Your task to perform on an android device: stop showing notifications on the lock screen Image 0: 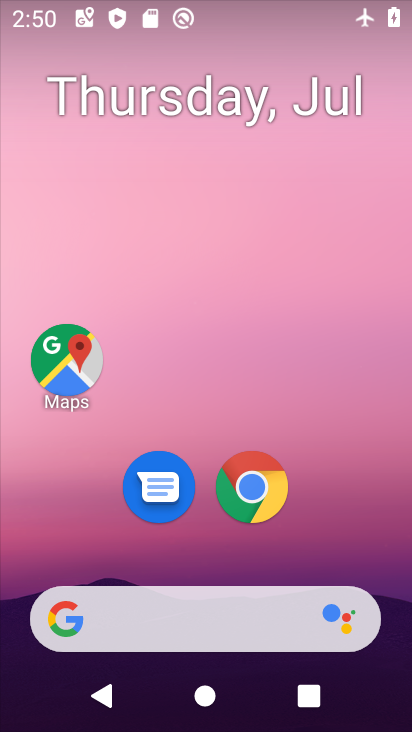
Step 0: drag from (375, 557) to (380, 105)
Your task to perform on an android device: stop showing notifications on the lock screen Image 1: 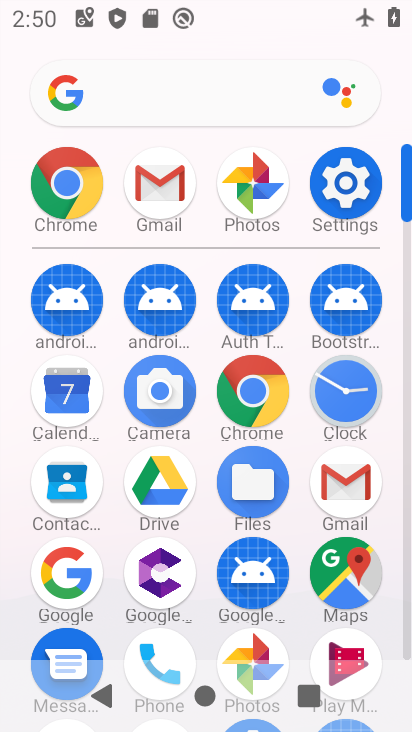
Step 1: click (359, 193)
Your task to perform on an android device: stop showing notifications on the lock screen Image 2: 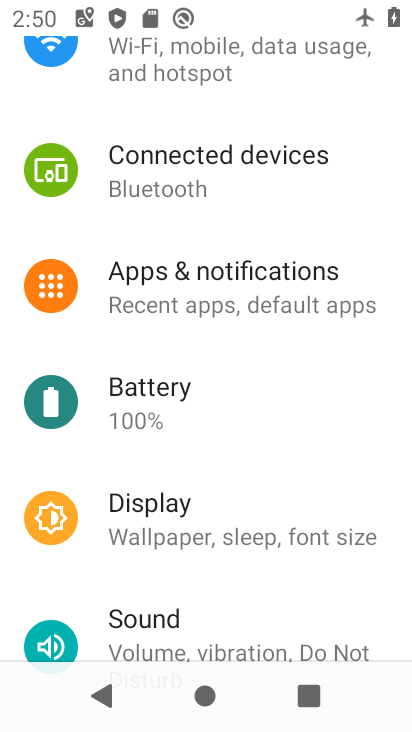
Step 2: click (335, 295)
Your task to perform on an android device: stop showing notifications on the lock screen Image 3: 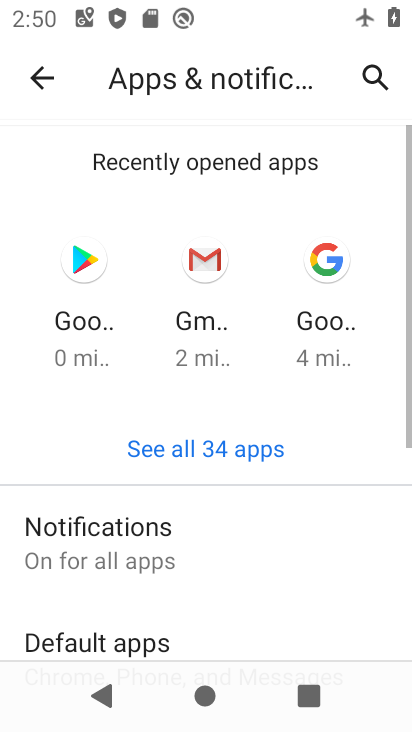
Step 3: drag from (336, 431) to (352, 359)
Your task to perform on an android device: stop showing notifications on the lock screen Image 4: 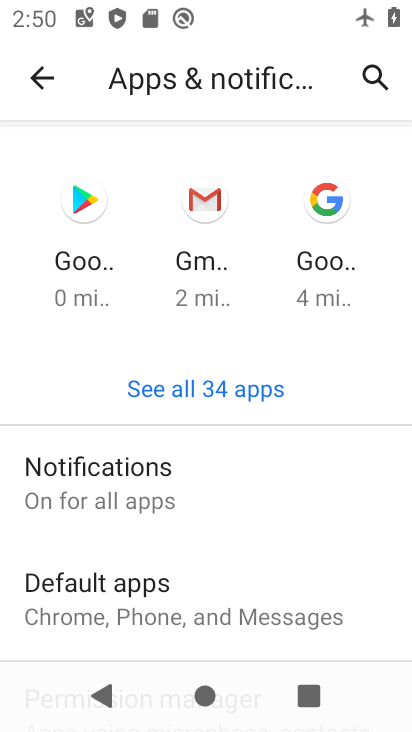
Step 4: drag from (356, 424) to (354, 346)
Your task to perform on an android device: stop showing notifications on the lock screen Image 5: 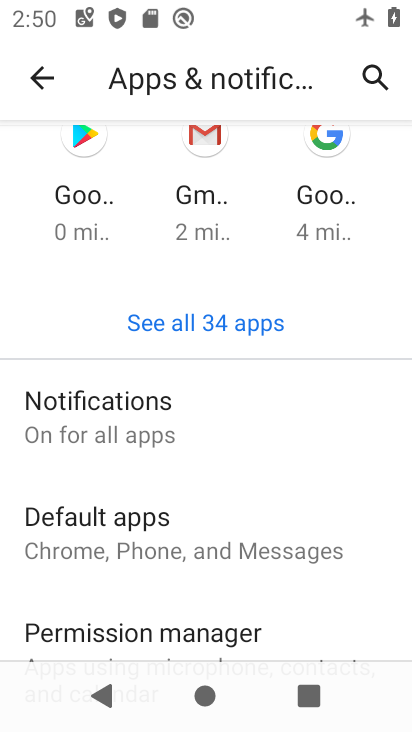
Step 5: drag from (351, 431) to (350, 344)
Your task to perform on an android device: stop showing notifications on the lock screen Image 6: 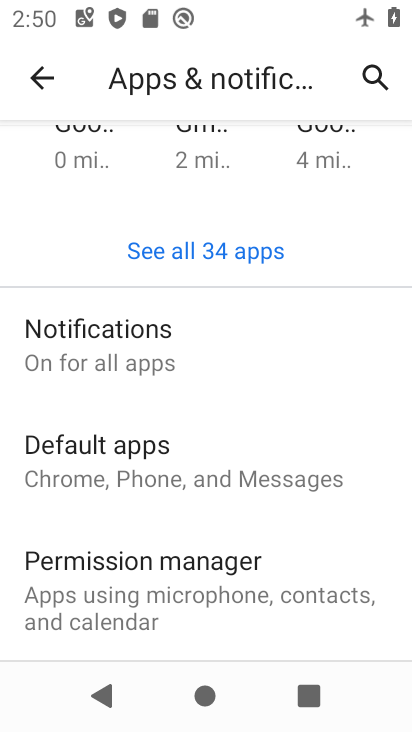
Step 6: click (207, 354)
Your task to perform on an android device: stop showing notifications on the lock screen Image 7: 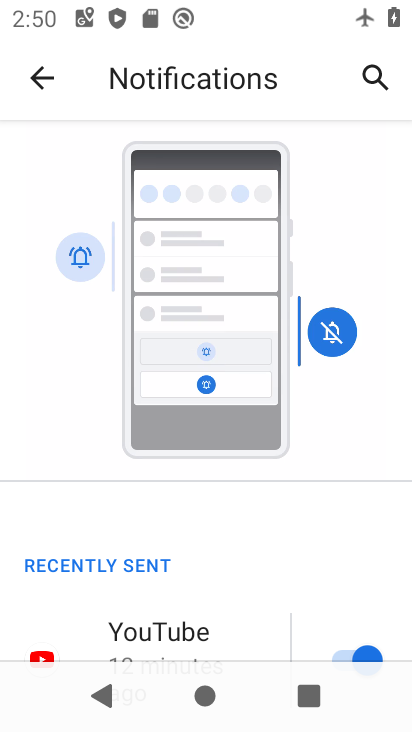
Step 7: drag from (296, 505) to (300, 419)
Your task to perform on an android device: stop showing notifications on the lock screen Image 8: 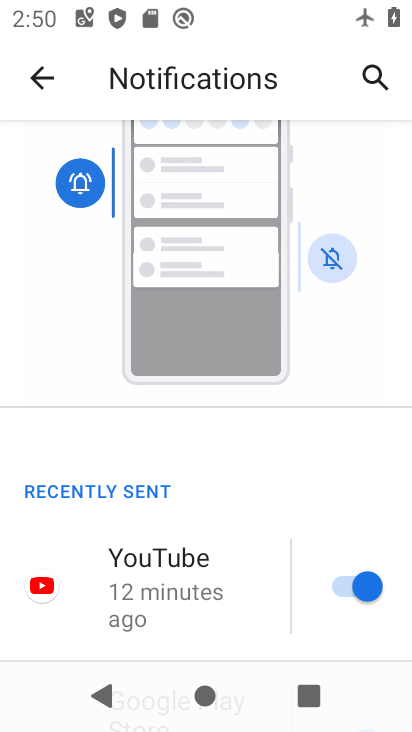
Step 8: drag from (287, 490) to (287, 383)
Your task to perform on an android device: stop showing notifications on the lock screen Image 9: 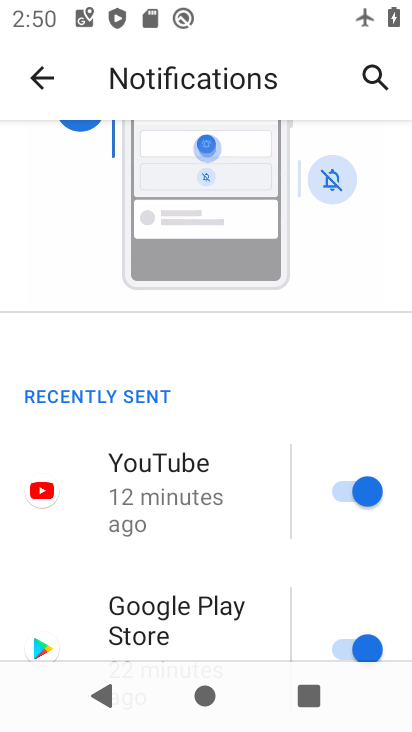
Step 9: drag from (256, 493) to (247, 370)
Your task to perform on an android device: stop showing notifications on the lock screen Image 10: 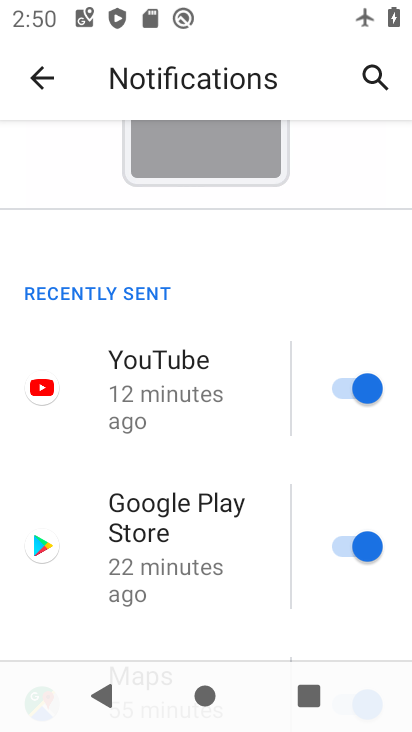
Step 10: drag from (250, 486) to (258, 364)
Your task to perform on an android device: stop showing notifications on the lock screen Image 11: 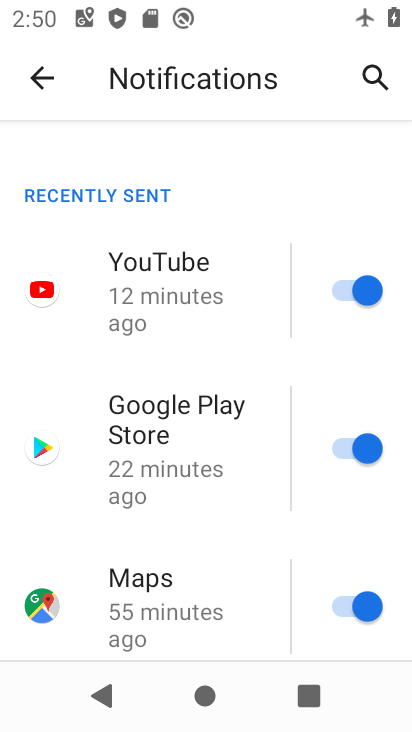
Step 11: drag from (260, 479) to (266, 348)
Your task to perform on an android device: stop showing notifications on the lock screen Image 12: 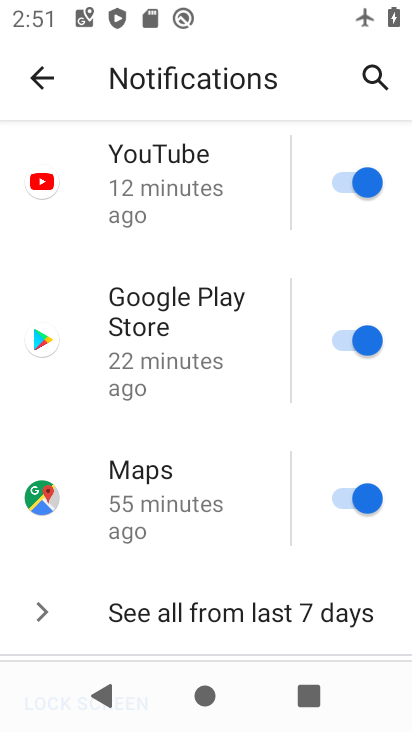
Step 12: drag from (260, 489) to (258, 370)
Your task to perform on an android device: stop showing notifications on the lock screen Image 13: 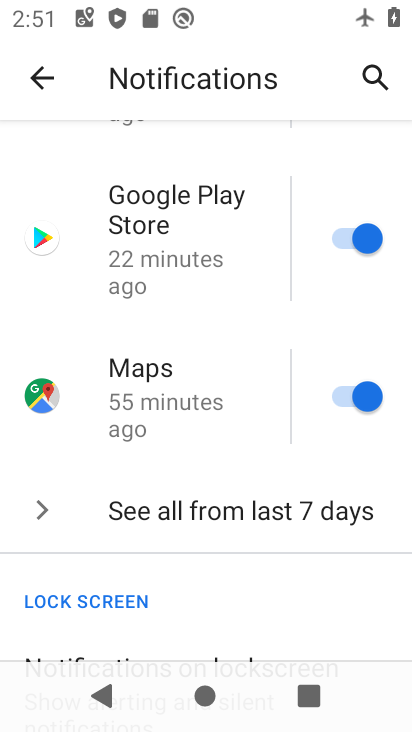
Step 13: drag from (246, 536) to (242, 422)
Your task to perform on an android device: stop showing notifications on the lock screen Image 14: 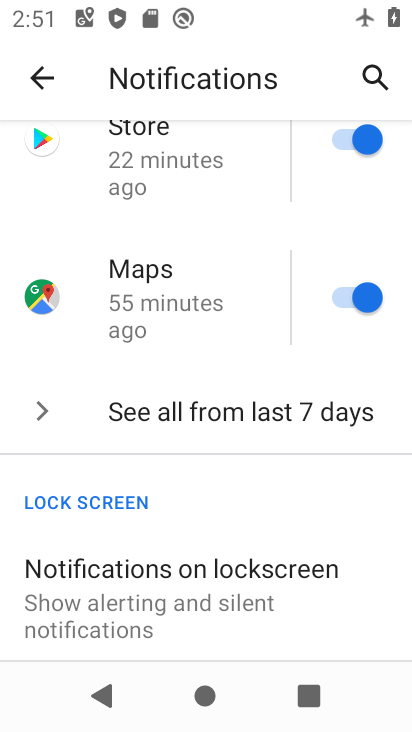
Step 14: drag from (238, 540) to (238, 417)
Your task to perform on an android device: stop showing notifications on the lock screen Image 15: 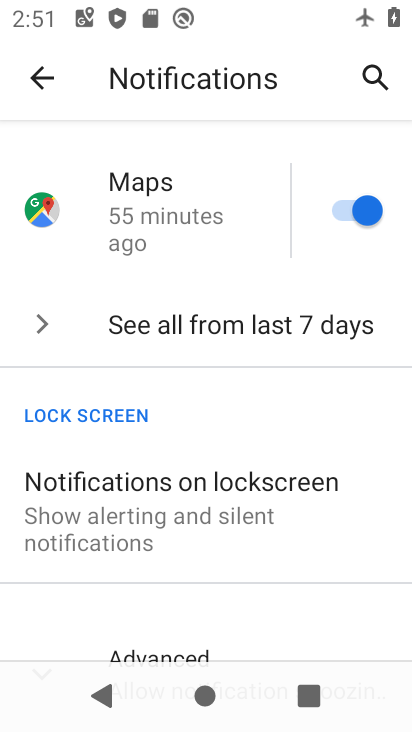
Step 15: drag from (271, 546) to (272, 418)
Your task to perform on an android device: stop showing notifications on the lock screen Image 16: 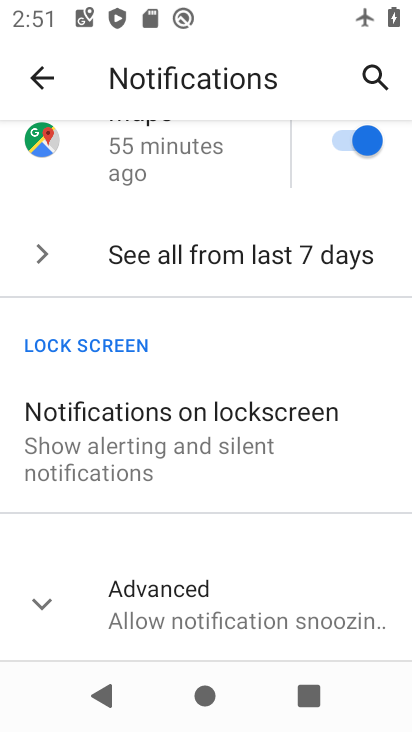
Step 16: click (277, 447)
Your task to perform on an android device: stop showing notifications on the lock screen Image 17: 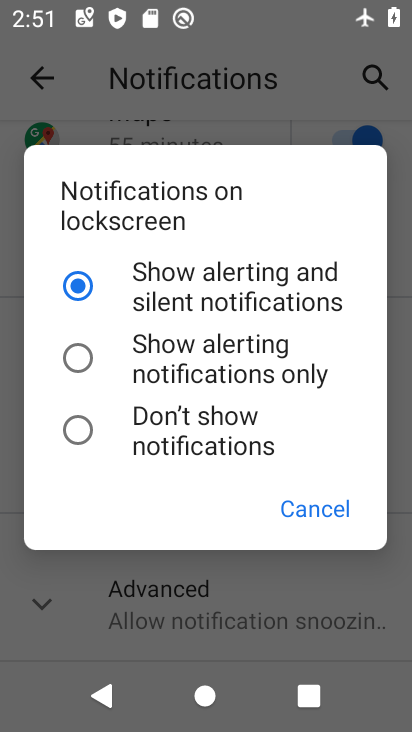
Step 17: click (81, 425)
Your task to perform on an android device: stop showing notifications on the lock screen Image 18: 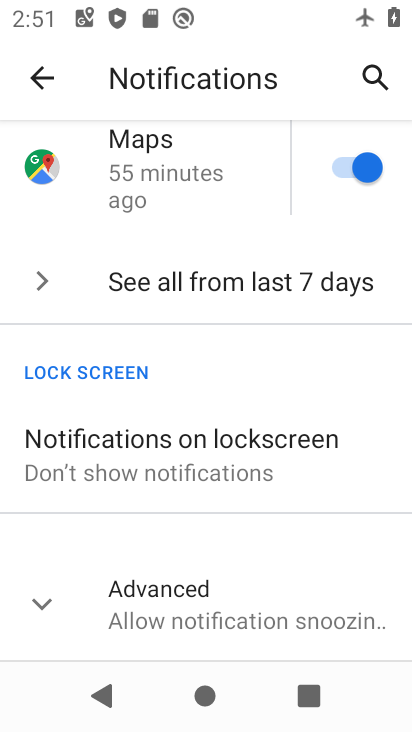
Step 18: task complete